Your task to perform on an android device: set the stopwatch Image 0: 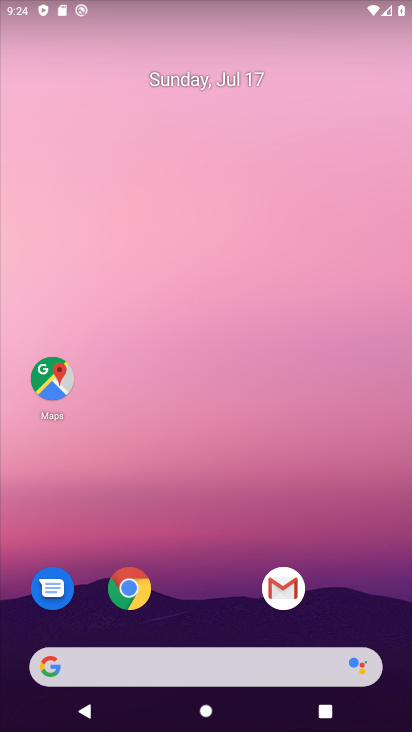
Step 0: drag from (285, 640) to (309, 119)
Your task to perform on an android device: set the stopwatch Image 1: 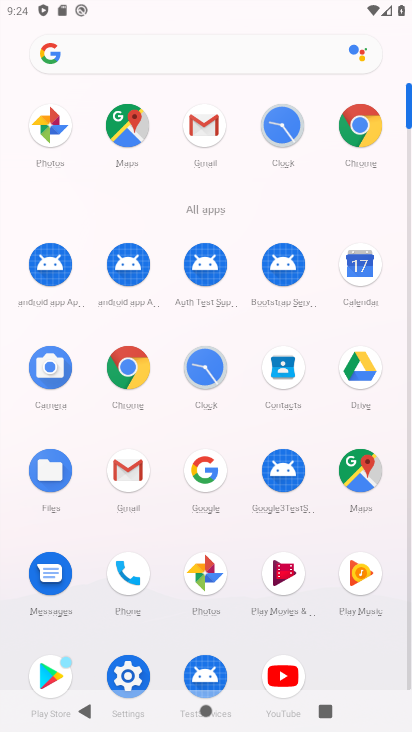
Step 1: click (300, 118)
Your task to perform on an android device: set the stopwatch Image 2: 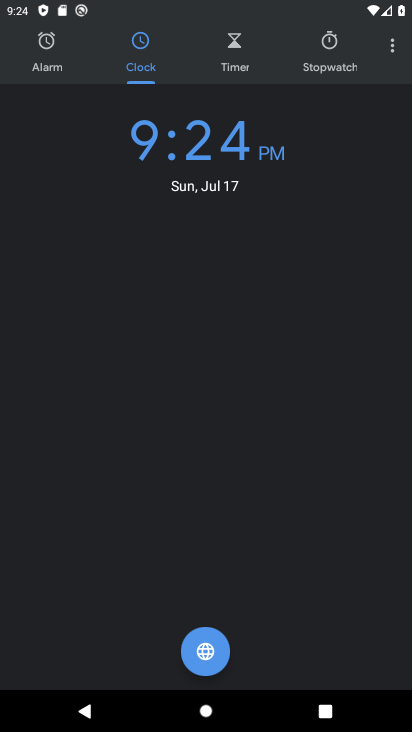
Step 2: click (307, 60)
Your task to perform on an android device: set the stopwatch Image 3: 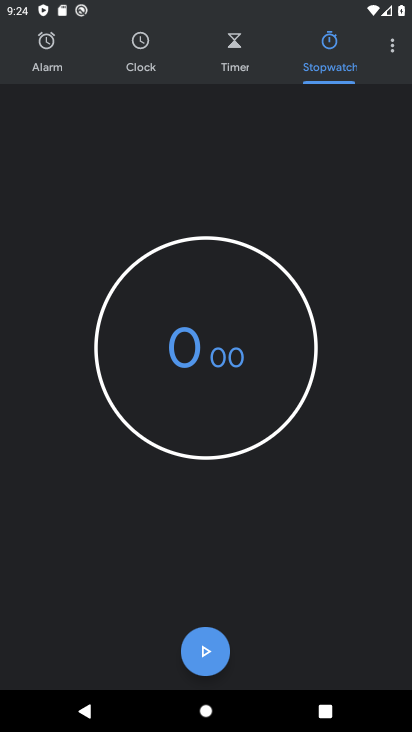
Step 3: click (216, 650)
Your task to perform on an android device: set the stopwatch Image 4: 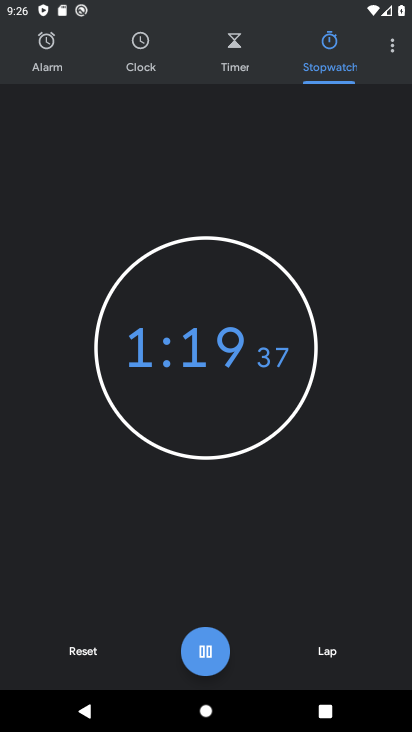
Step 4: click (218, 647)
Your task to perform on an android device: set the stopwatch Image 5: 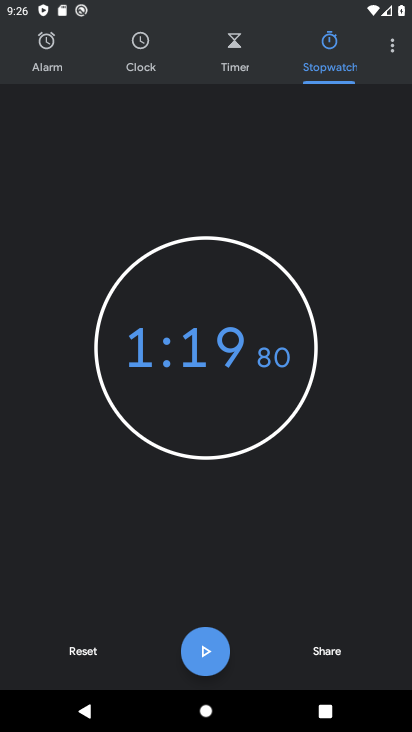
Step 5: task complete